Your task to perform on an android device: open app "Fetch Rewards" Image 0: 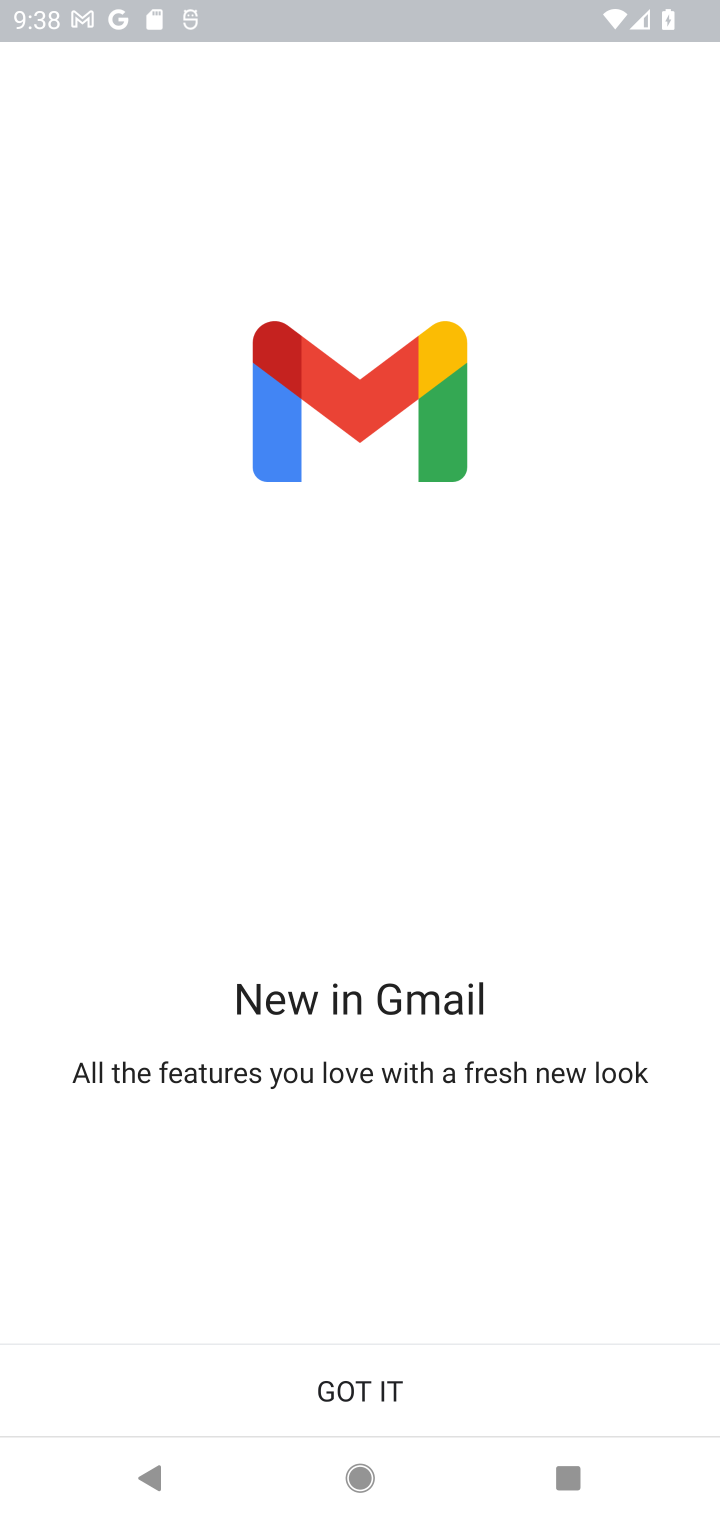
Step 0: press home button
Your task to perform on an android device: open app "Fetch Rewards" Image 1: 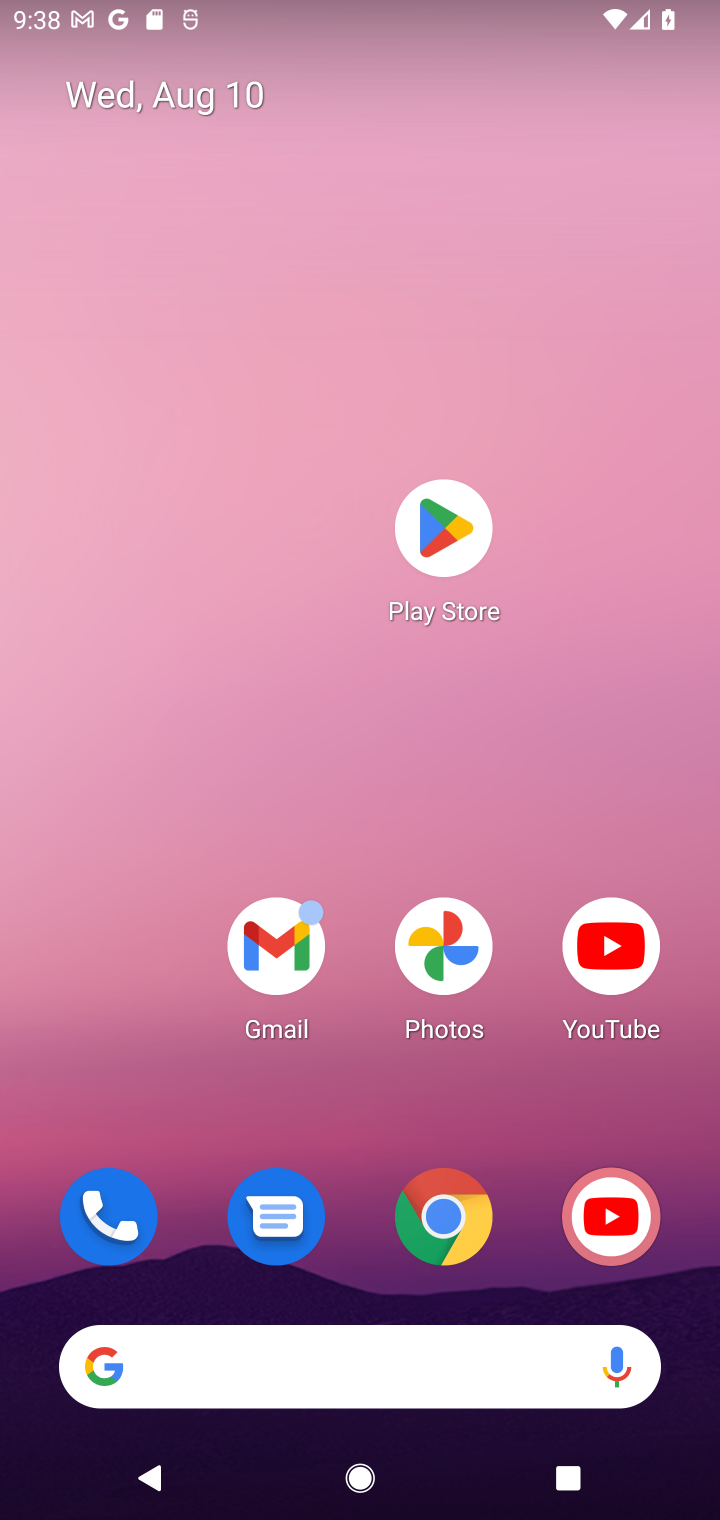
Step 1: click (430, 536)
Your task to perform on an android device: open app "Fetch Rewards" Image 2: 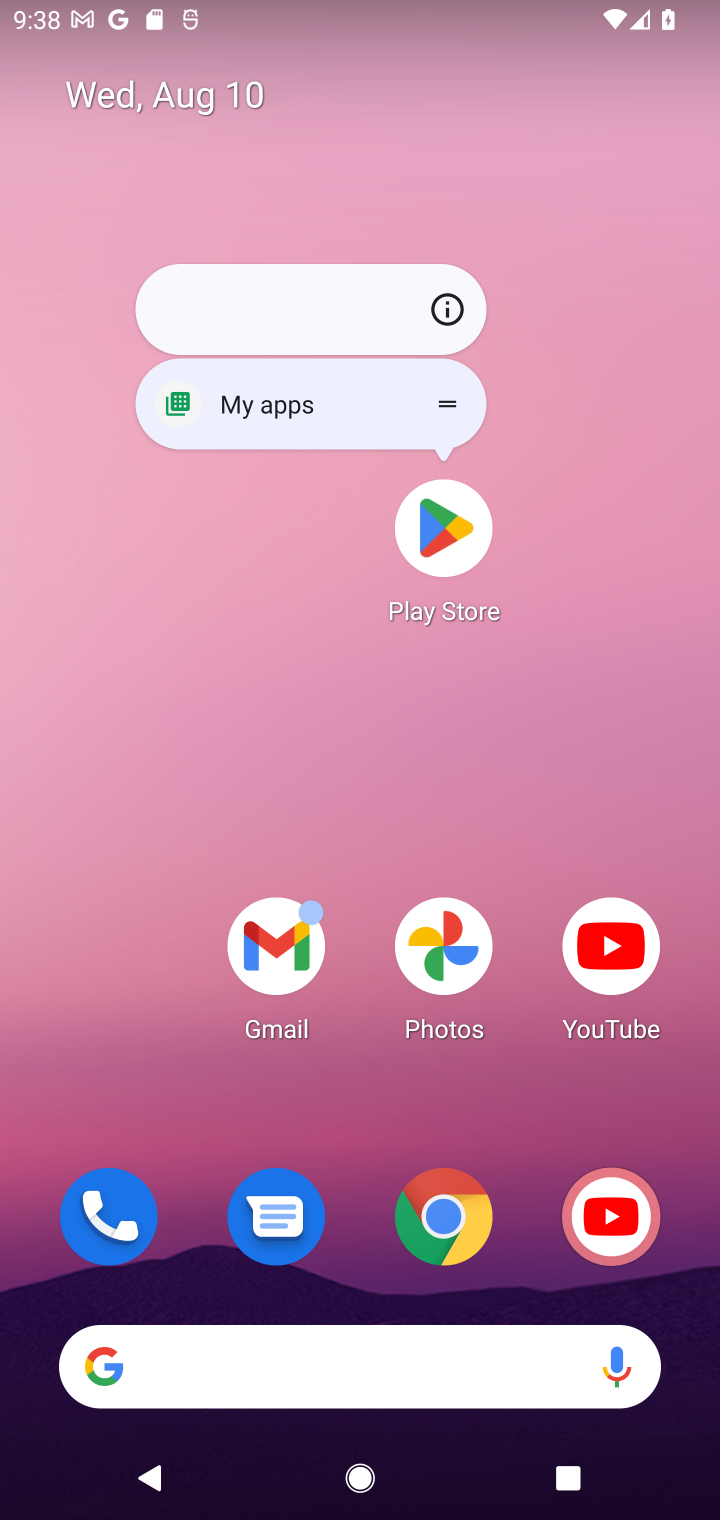
Step 2: click (430, 541)
Your task to perform on an android device: open app "Fetch Rewards" Image 3: 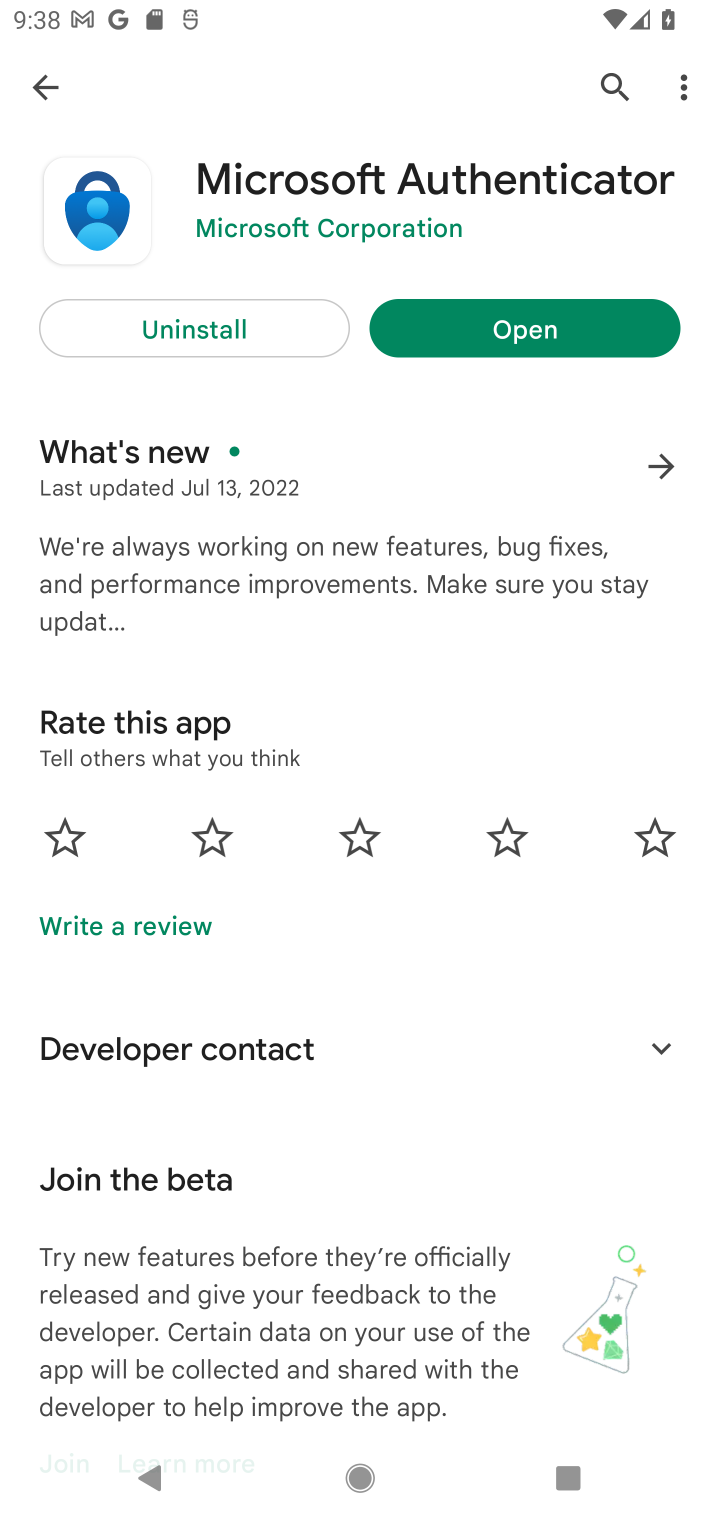
Step 3: click (602, 85)
Your task to perform on an android device: open app "Fetch Rewards" Image 4: 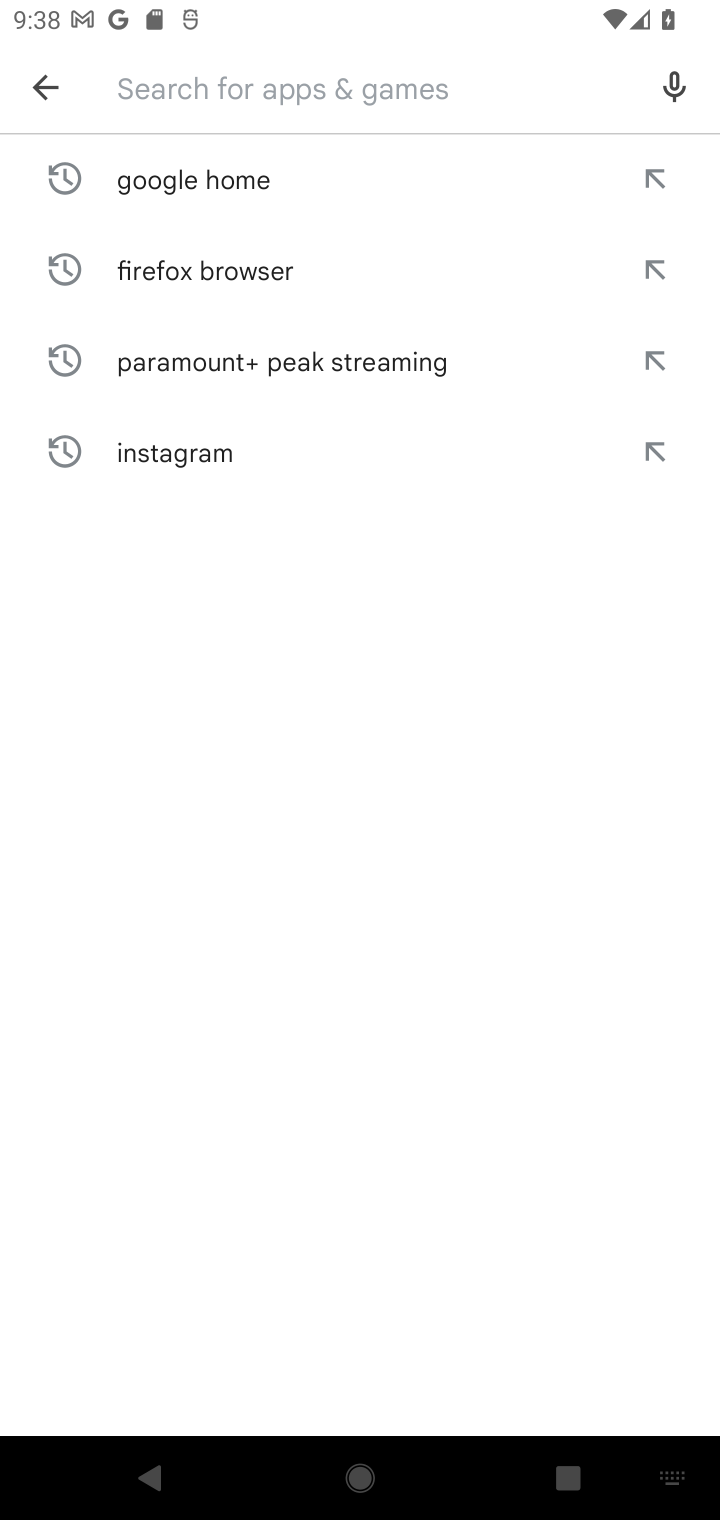
Step 4: type "Fetch Rewards"
Your task to perform on an android device: open app "Fetch Rewards" Image 5: 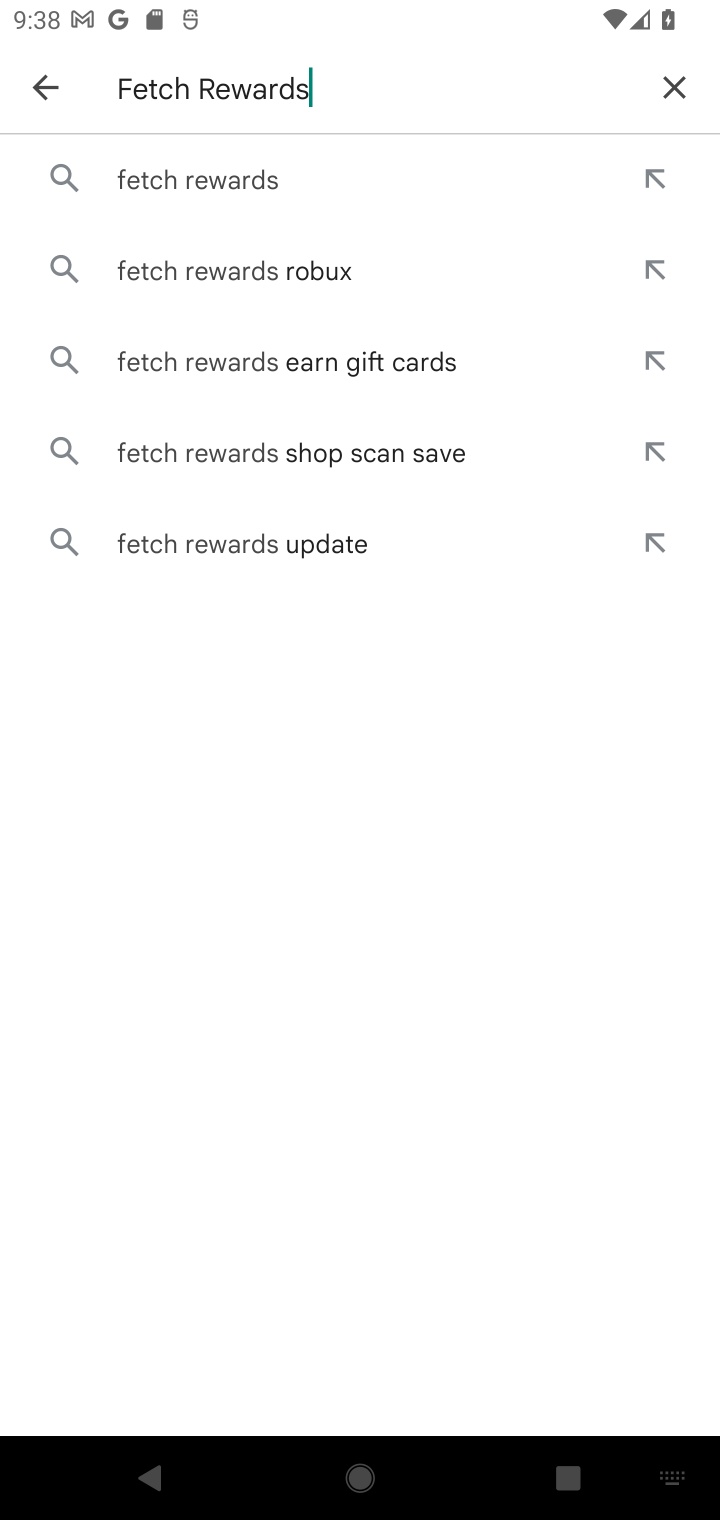
Step 5: click (233, 171)
Your task to perform on an android device: open app "Fetch Rewards" Image 6: 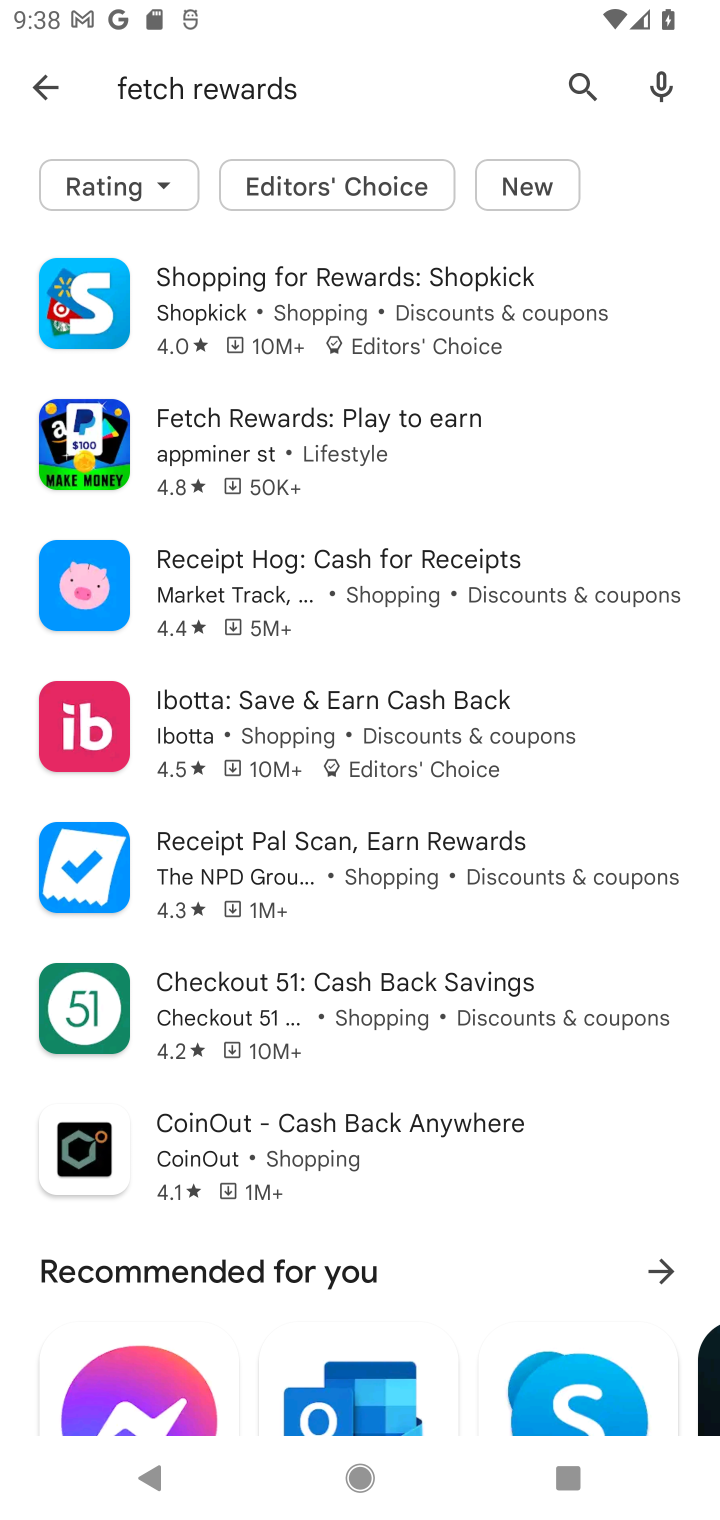
Step 6: click (333, 460)
Your task to perform on an android device: open app "Fetch Rewards" Image 7: 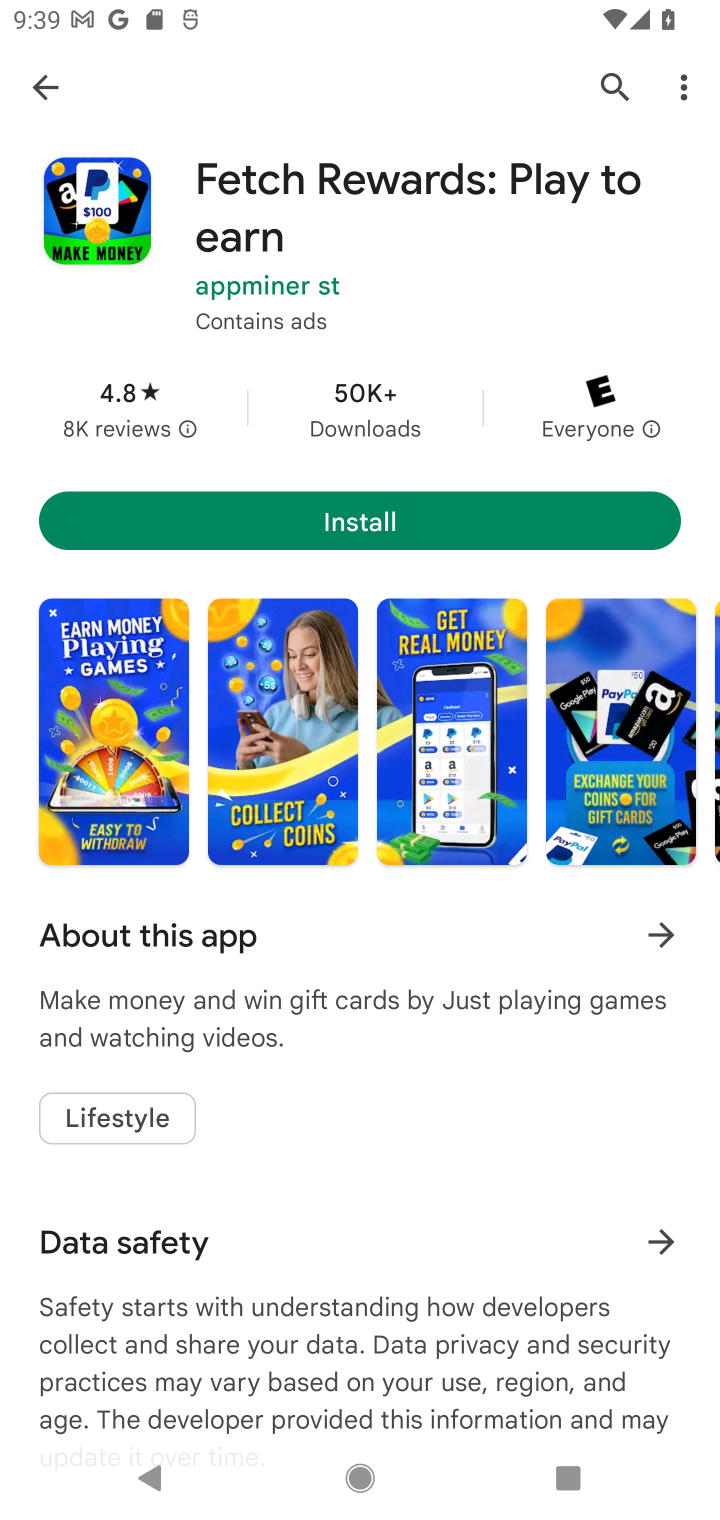
Step 7: task complete